Your task to perform on an android device: Show me popular games on the Play Store Image 0: 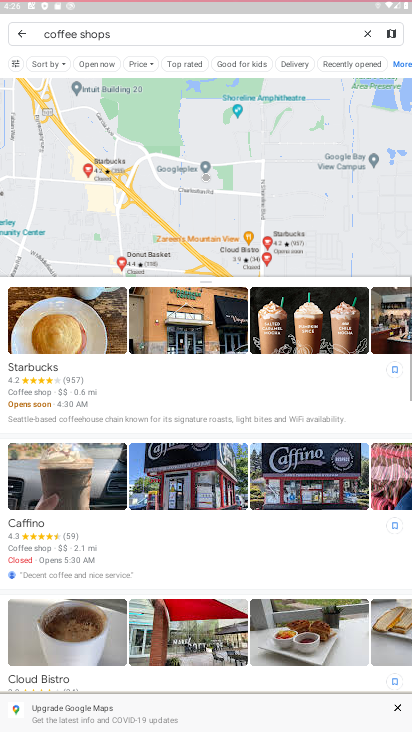
Step 0: drag from (241, 491) to (301, 178)
Your task to perform on an android device: Show me popular games on the Play Store Image 1: 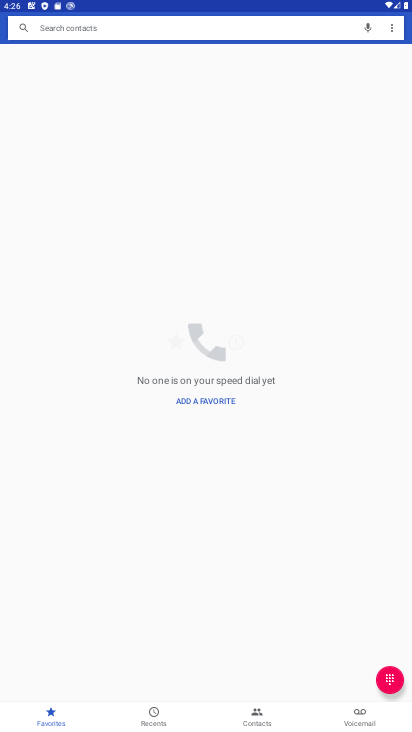
Step 1: press home button
Your task to perform on an android device: Show me popular games on the Play Store Image 2: 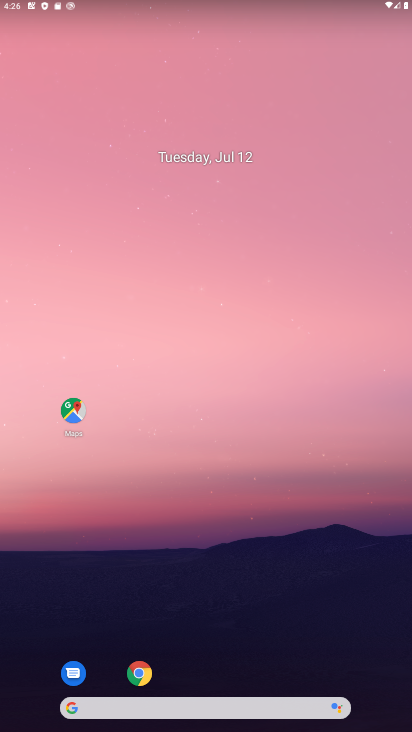
Step 2: drag from (221, 672) to (305, 191)
Your task to perform on an android device: Show me popular games on the Play Store Image 3: 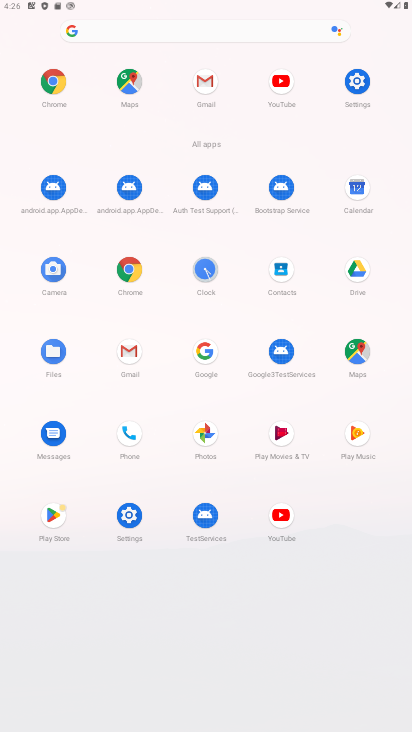
Step 3: click (67, 521)
Your task to perform on an android device: Show me popular games on the Play Store Image 4: 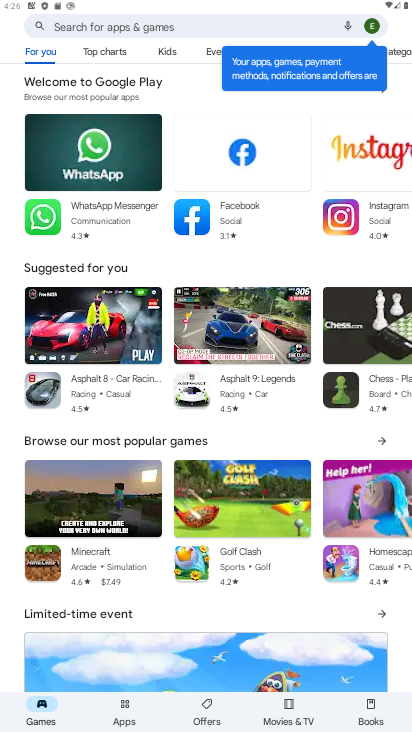
Step 4: click (381, 440)
Your task to perform on an android device: Show me popular games on the Play Store Image 5: 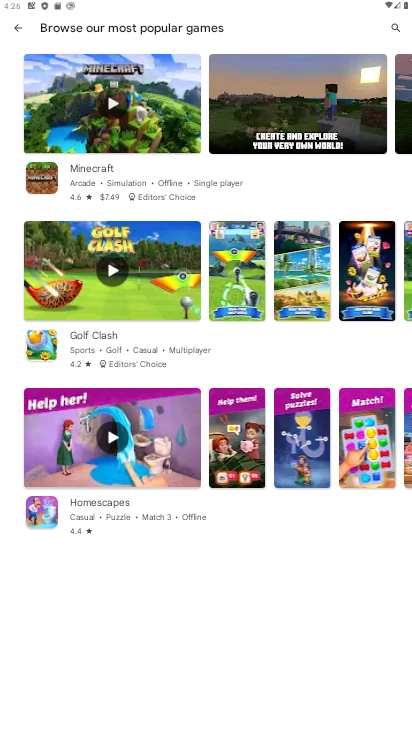
Step 5: task complete